Your task to perform on an android device: Open Wikipedia Image 0: 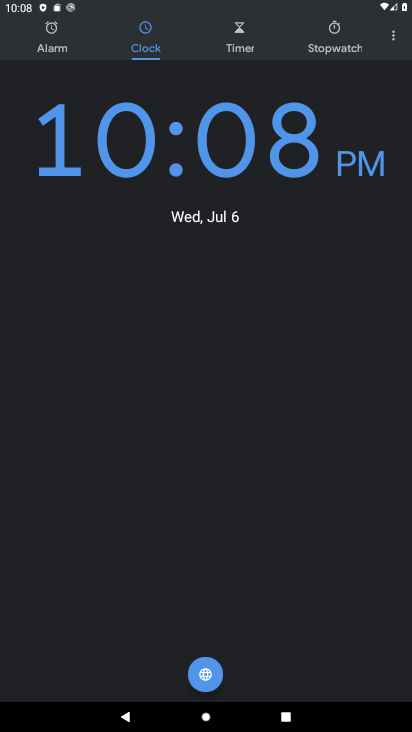
Step 0: press home button
Your task to perform on an android device: Open Wikipedia Image 1: 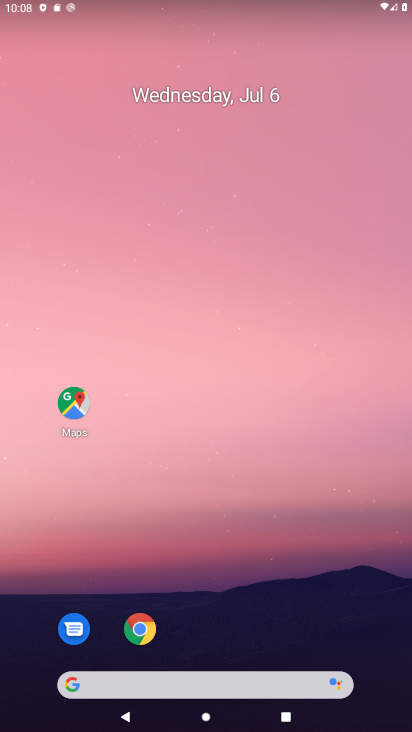
Step 1: drag from (274, 592) to (260, 129)
Your task to perform on an android device: Open Wikipedia Image 2: 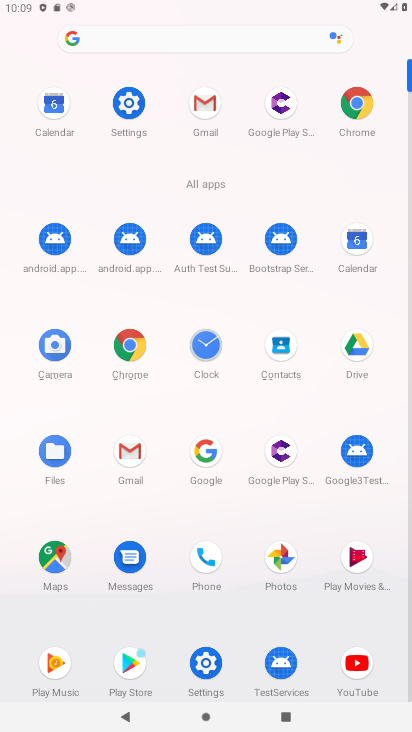
Step 2: click (358, 122)
Your task to perform on an android device: Open Wikipedia Image 3: 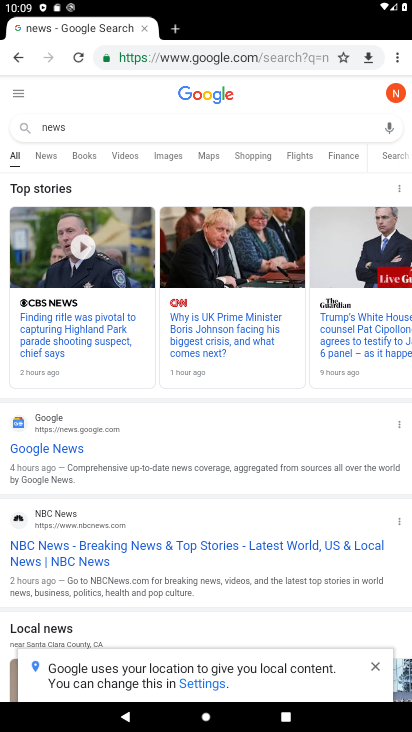
Step 3: click (170, 26)
Your task to perform on an android device: Open Wikipedia Image 4: 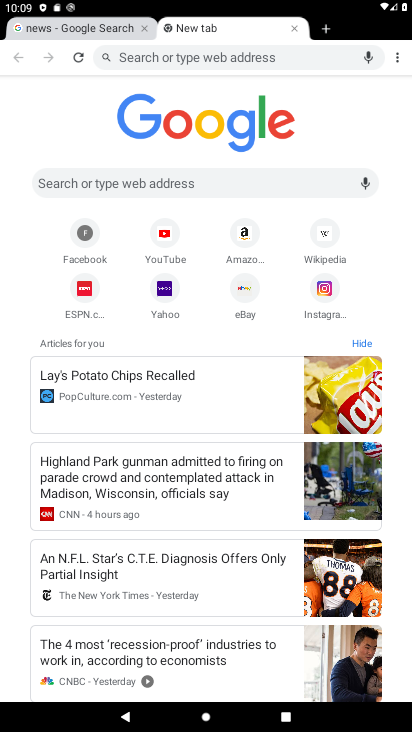
Step 4: click (327, 229)
Your task to perform on an android device: Open Wikipedia Image 5: 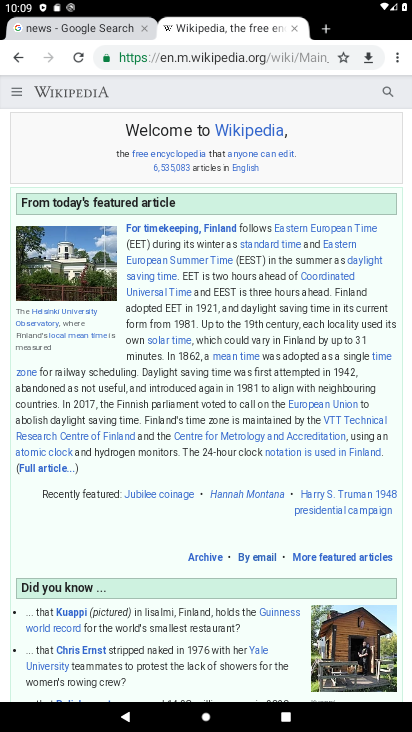
Step 5: task complete